Your task to perform on an android device: star an email in the gmail app Image 0: 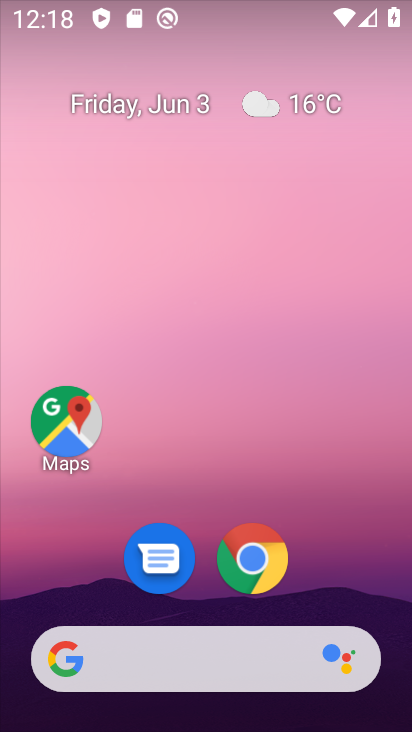
Step 0: drag from (372, 592) to (386, 249)
Your task to perform on an android device: star an email in the gmail app Image 1: 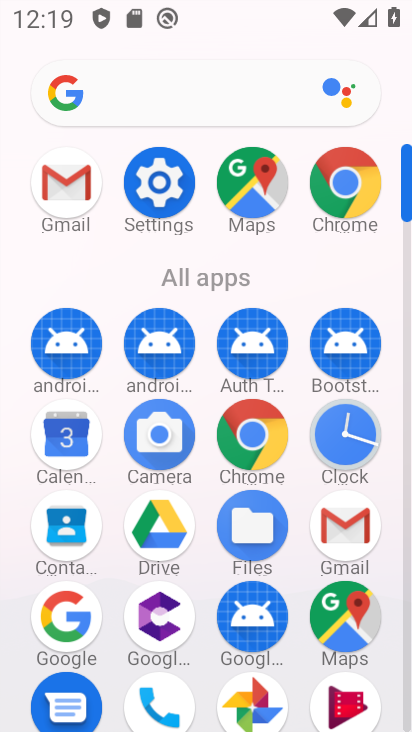
Step 1: click (358, 524)
Your task to perform on an android device: star an email in the gmail app Image 2: 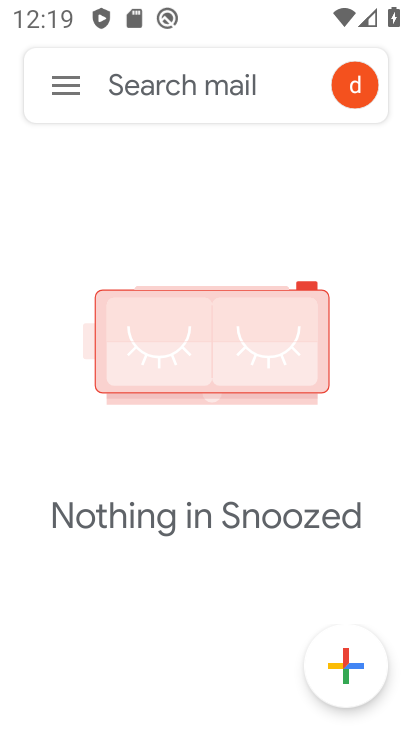
Step 2: click (68, 85)
Your task to perform on an android device: star an email in the gmail app Image 3: 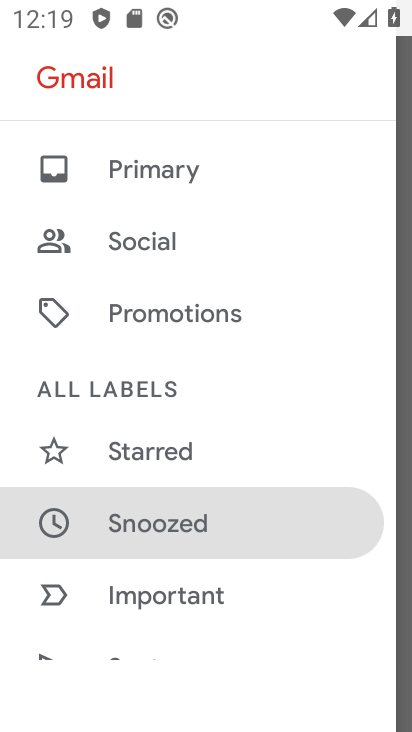
Step 3: drag from (304, 242) to (307, 371)
Your task to perform on an android device: star an email in the gmail app Image 4: 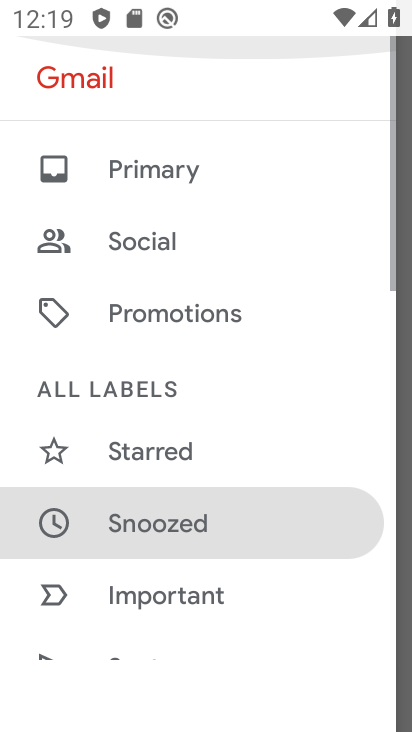
Step 4: drag from (304, 410) to (306, 284)
Your task to perform on an android device: star an email in the gmail app Image 5: 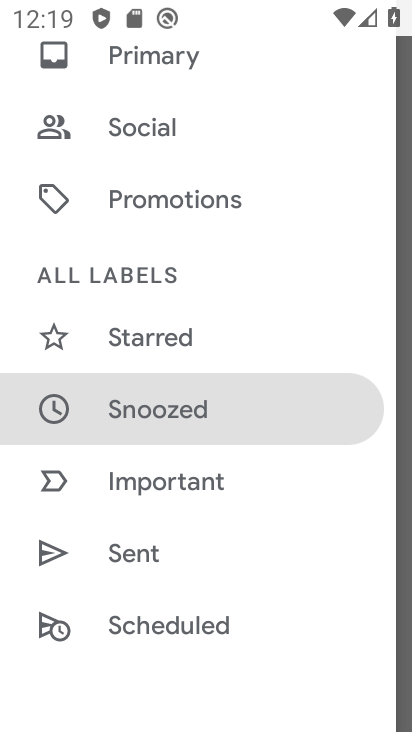
Step 5: drag from (302, 518) to (274, 337)
Your task to perform on an android device: star an email in the gmail app Image 6: 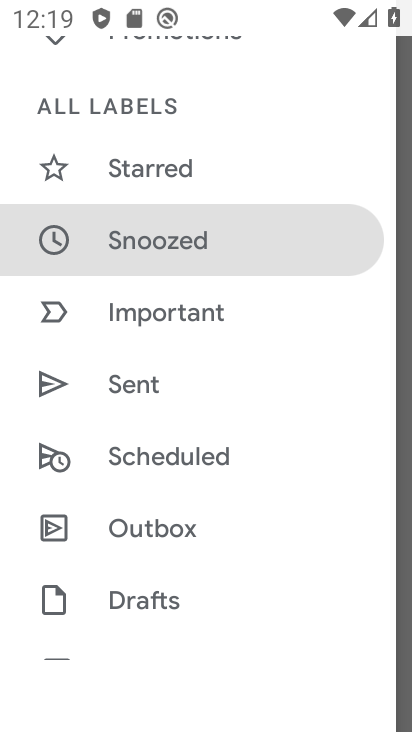
Step 6: drag from (252, 503) to (258, 353)
Your task to perform on an android device: star an email in the gmail app Image 7: 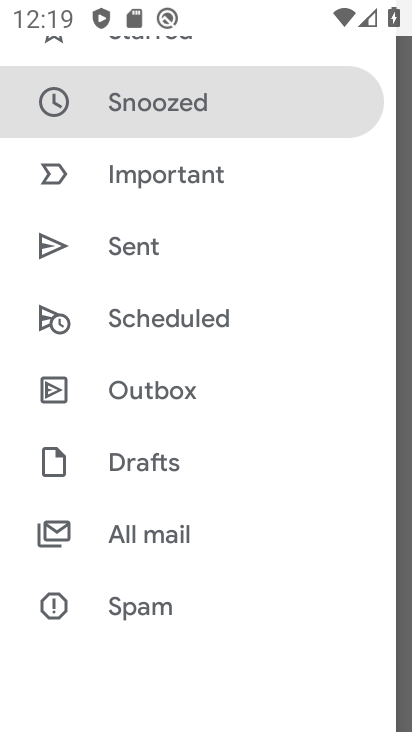
Step 7: drag from (271, 292) to (292, 409)
Your task to perform on an android device: star an email in the gmail app Image 8: 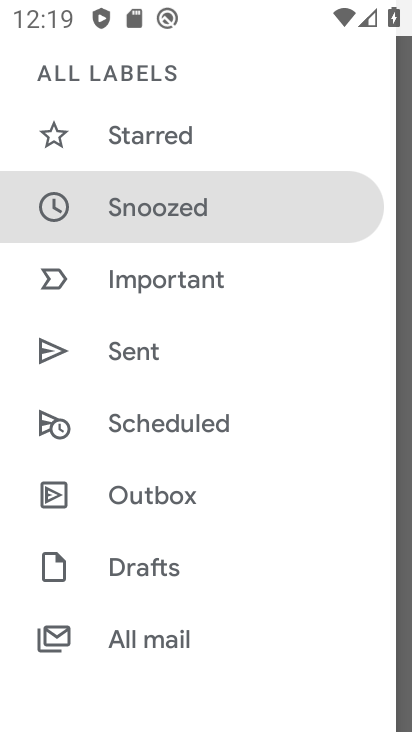
Step 8: drag from (292, 213) to (288, 371)
Your task to perform on an android device: star an email in the gmail app Image 9: 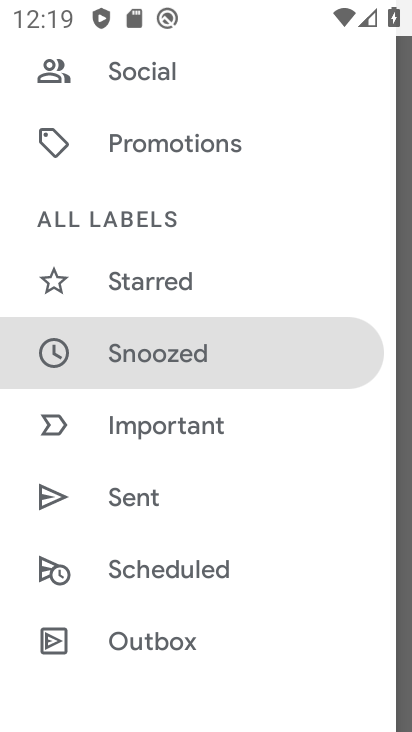
Step 9: drag from (319, 201) to (323, 388)
Your task to perform on an android device: star an email in the gmail app Image 10: 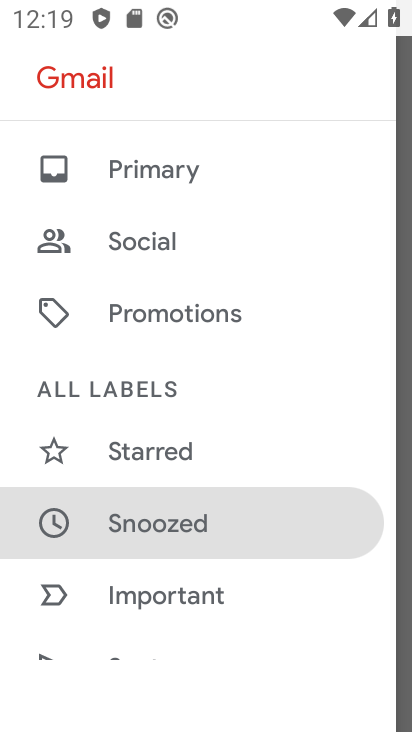
Step 10: click (223, 178)
Your task to perform on an android device: star an email in the gmail app Image 11: 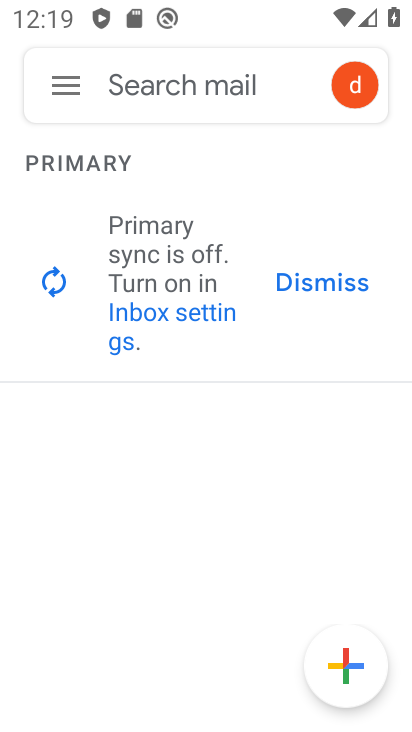
Step 11: task complete